Your task to perform on an android device: create a new album in the google photos Image 0: 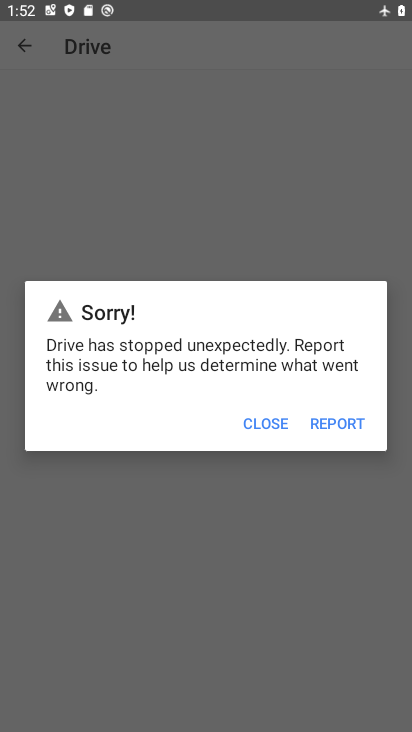
Step 0: press home button
Your task to perform on an android device: create a new album in the google photos Image 1: 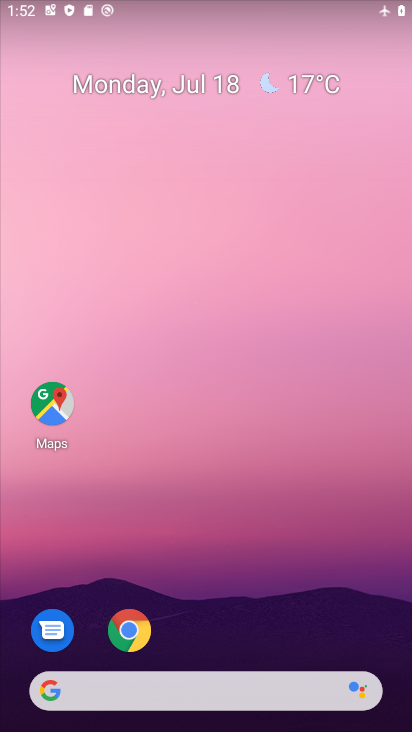
Step 1: drag from (303, 610) to (324, 34)
Your task to perform on an android device: create a new album in the google photos Image 2: 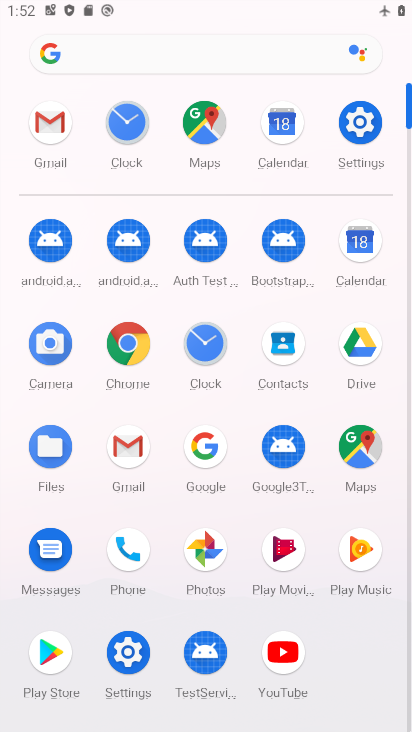
Step 2: click (220, 557)
Your task to perform on an android device: create a new album in the google photos Image 3: 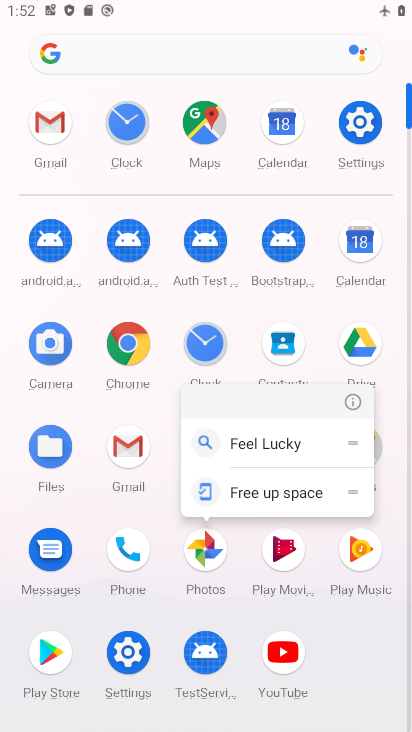
Step 3: click (205, 543)
Your task to perform on an android device: create a new album in the google photos Image 4: 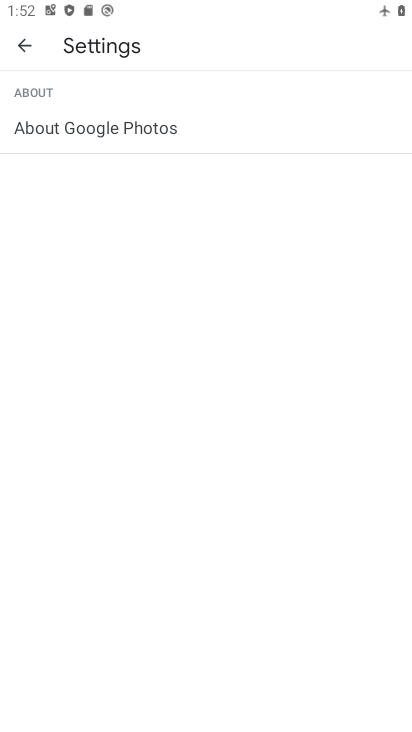
Step 4: click (26, 44)
Your task to perform on an android device: create a new album in the google photos Image 5: 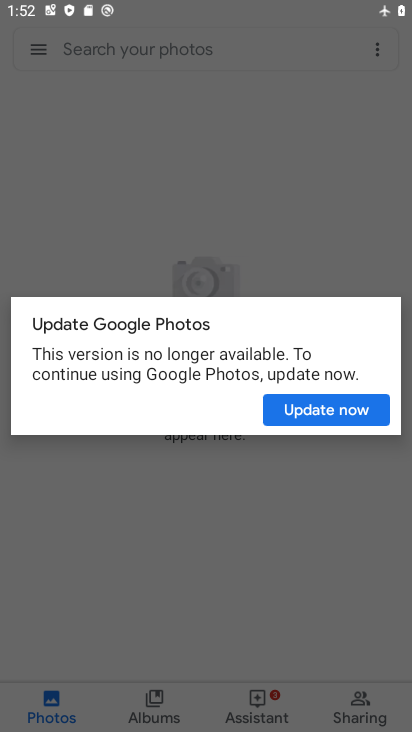
Step 5: click (335, 415)
Your task to perform on an android device: create a new album in the google photos Image 6: 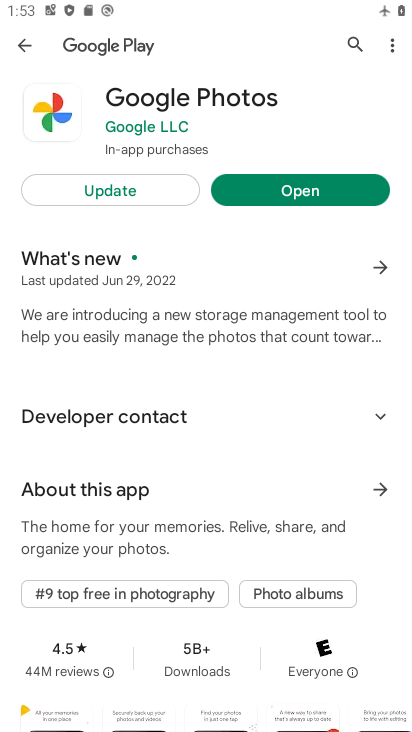
Step 6: click (309, 188)
Your task to perform on an android device: create a new album in the google photos Image 7: 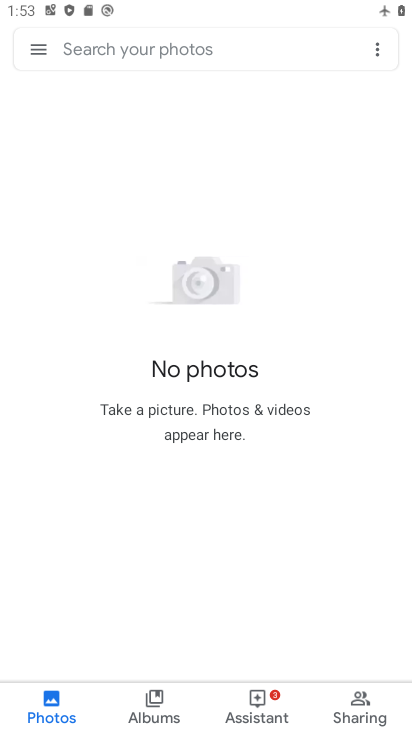
Step 7: click (159, 697)
Your task to perform on an android device: create a new album in the google photos Image 8: 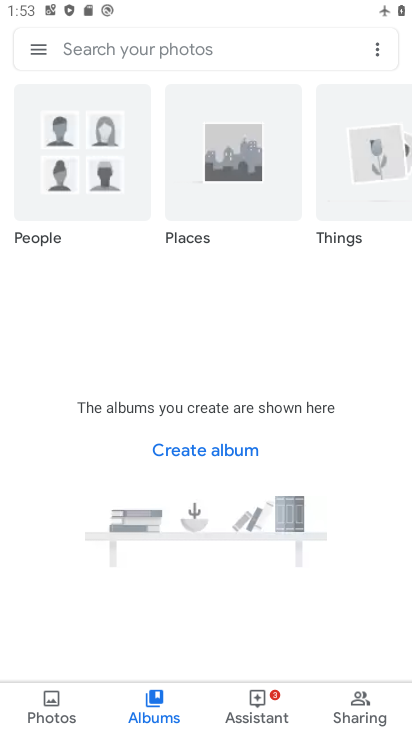
Step 8: click (231, 446)
Your task to perform on an android device: create a new album in the google photos Image 9: 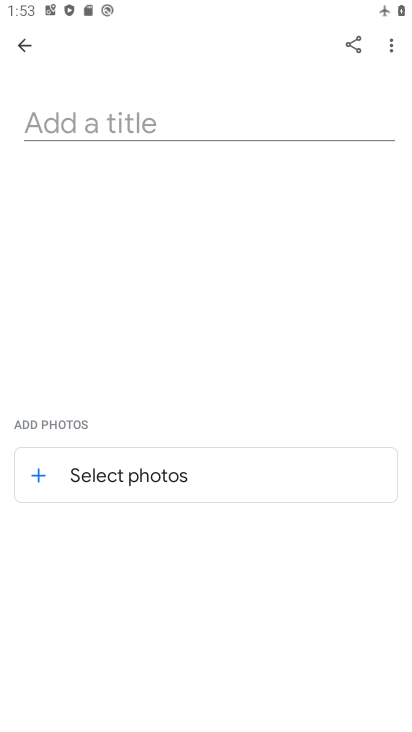
Step 9: click (141, 119)
Your task to perform on an android device: create a new album in the google photos Image 10: 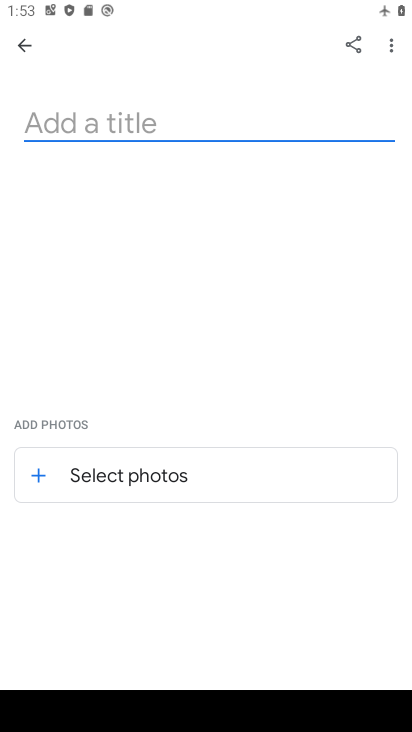
Step 10: type "Ayodhya"
Your task to perform on an android device: create a new album in the google photos Image 11: 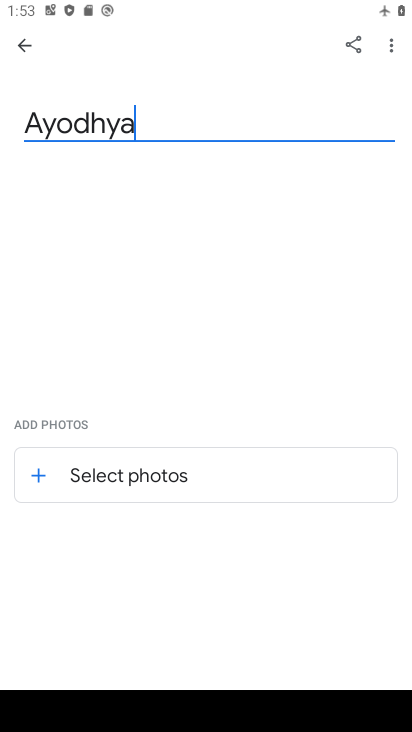
Step 11: click (35, 477)
Your task to perform on an android device: create a new album in the google photos Image 12: 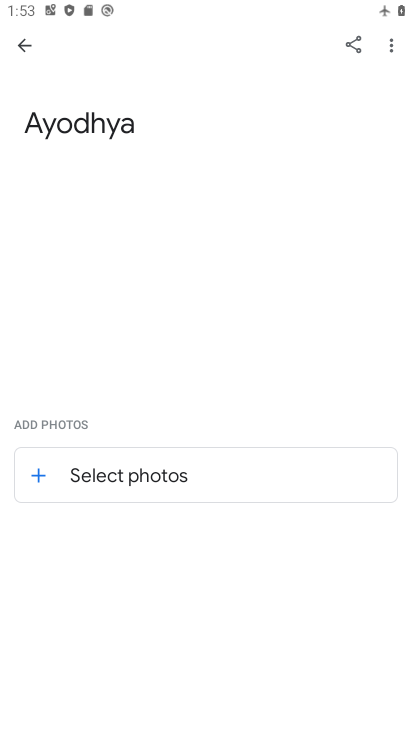
Step 12: click (38, 474)
Your task to perform on an android device: create a new album in the google photos Image 13: 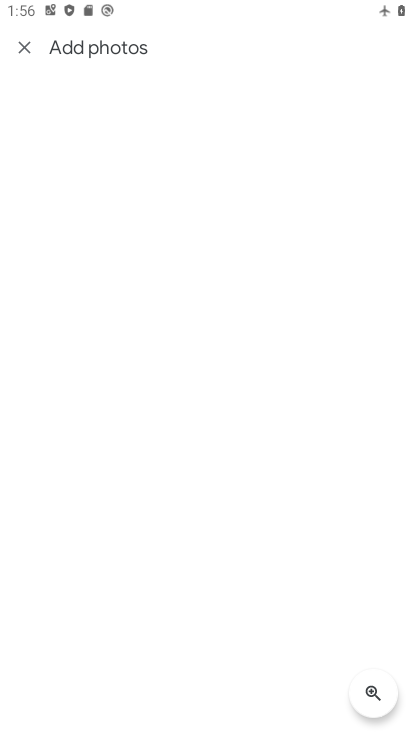
Step 13: task complete